Your task to perform on an android device: Toggle the flashlight Image 0: 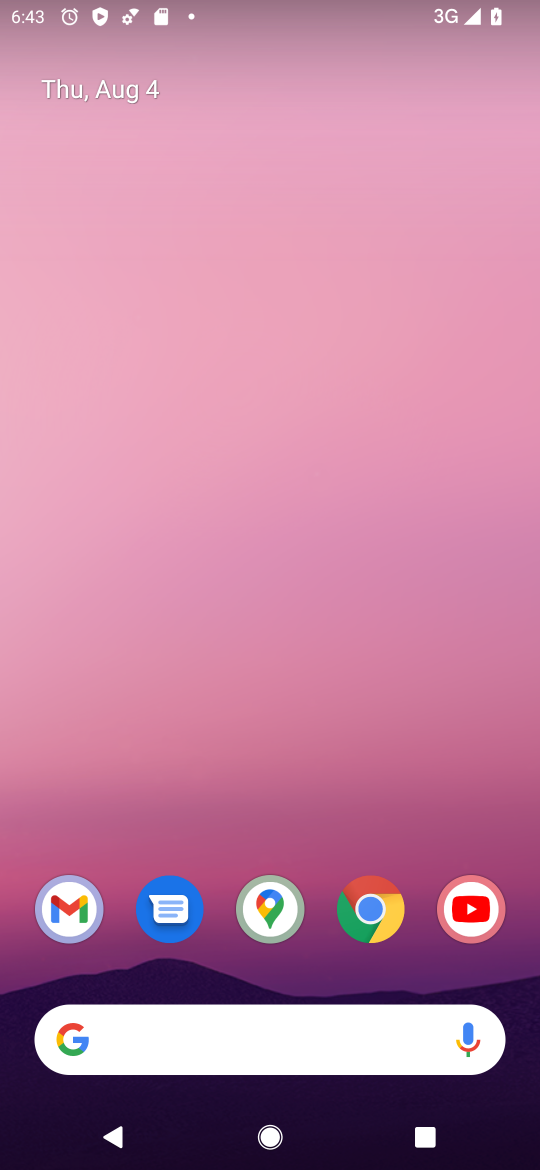
Step 0: drag from (279, 1055) to (226, 262)
Your task to perform on an android device: Toggle the flashlight Image 1: 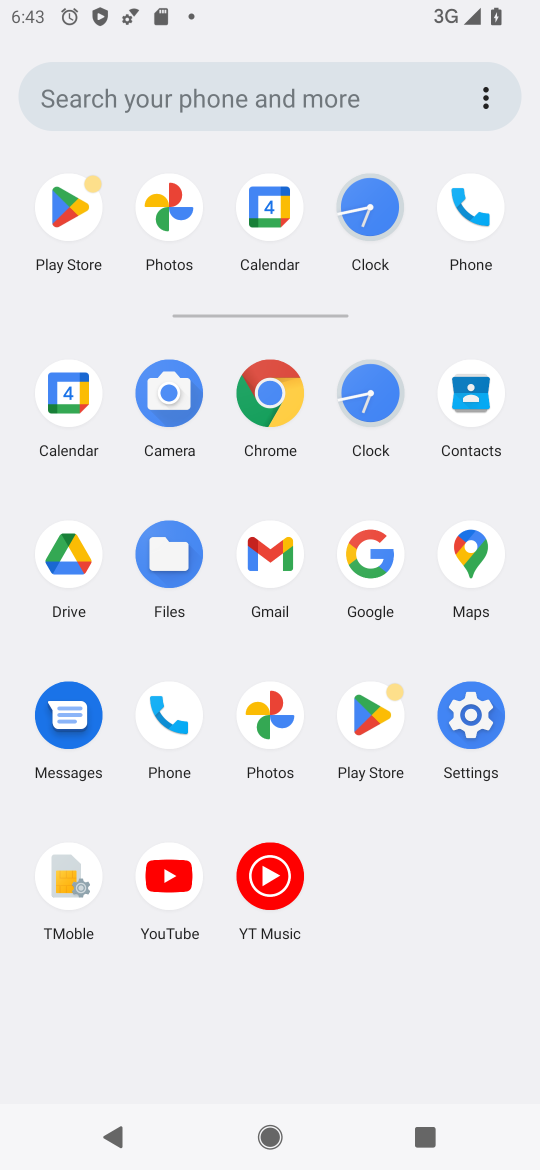
Step 1: click (491, 735)
Your task to perform on an android device: Toggle the flashlight Image 2: 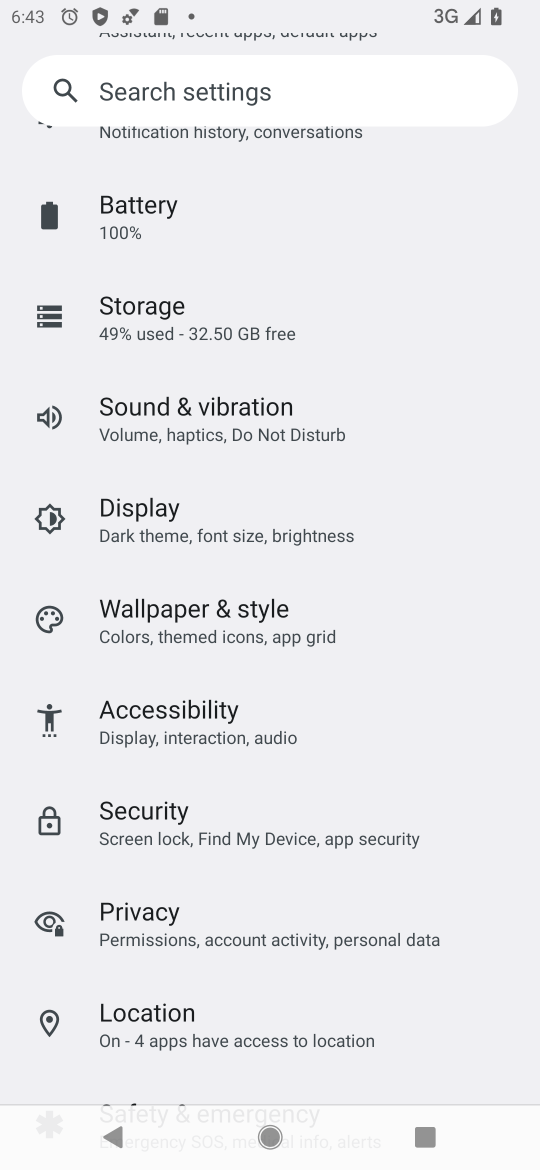
Step 2: task complete